Your task to perform on an android device: Open Chrome and go to settings Image 0: 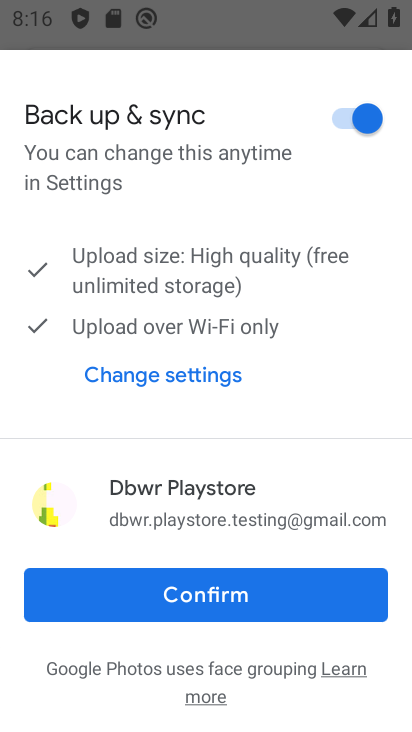
Step 0: press home button
Your task to perform on an android device: Open Chrome and go to settings Image 1: 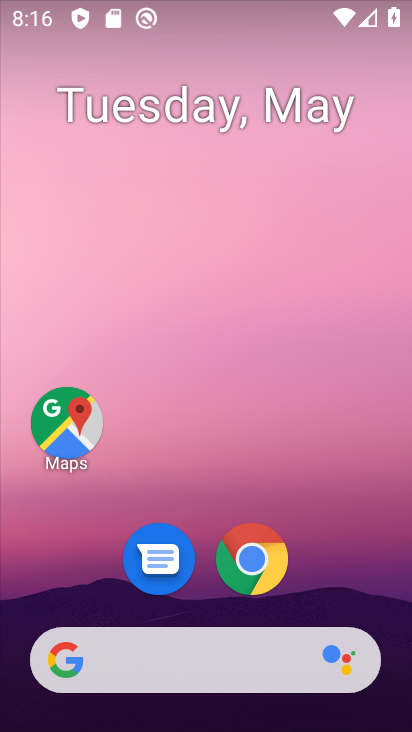
Step 1: click (276, 192)
Your task to perform on an android device: Open Chrome and go to settings Image 2: 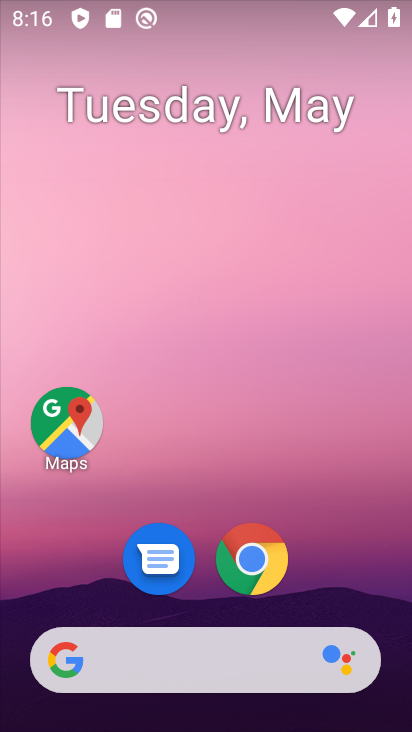
Step 2: click (262, 591)
Your task to perform on an android device: Open Chrome and go to settings Image 3: 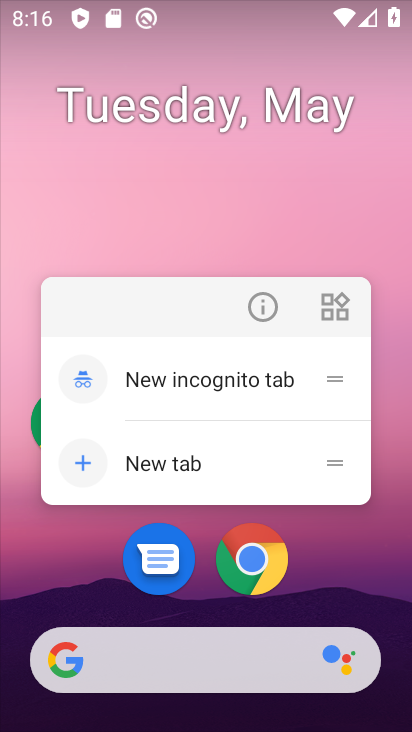
Step 3: click (275, 549)
Your task to perform on an android device: Open Chrome and go to settings Image 4: 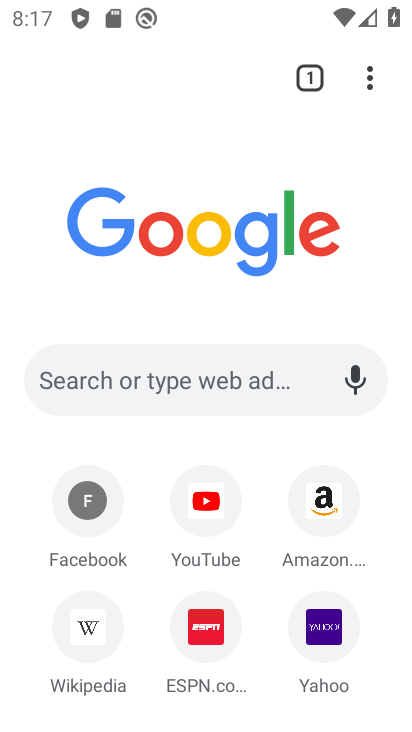
Step 4: task complete